Your task to perform on an android device: Is it going to rain tomorrow? Image 0: 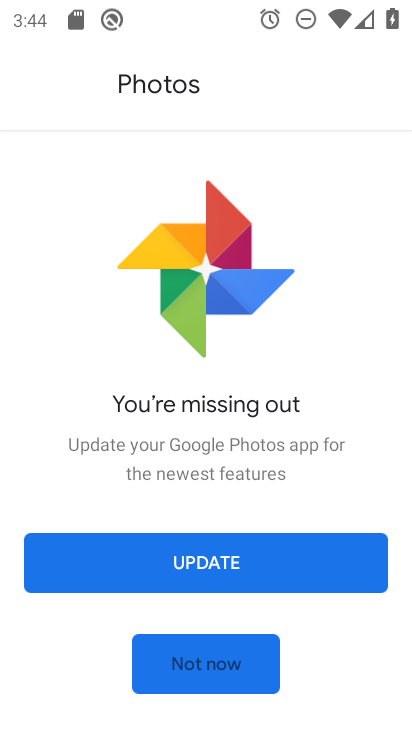
Step 0: press home button
Your task to perform on an android device: Is it going to rain tomorrow? Image 1: 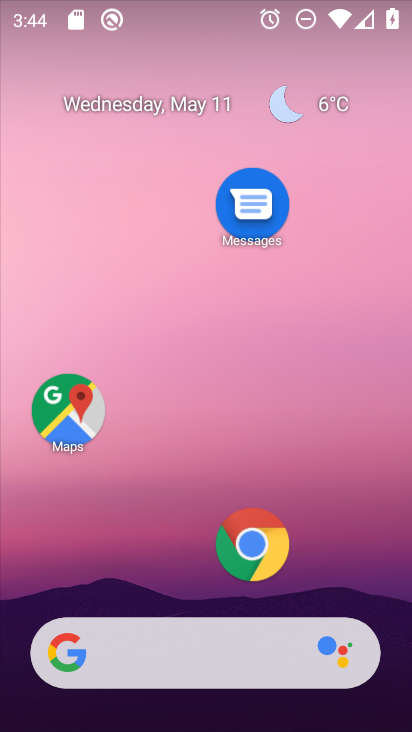
Step 1: click (287, 92)
Your task to perform on an android device: Is it going to rain tomorrow? Image 2: 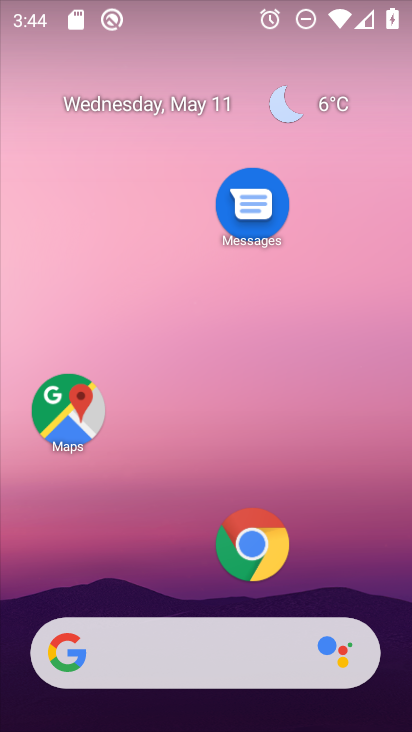
Step 2: click (298, 92)
Your task to perform on an android device: Is it going to rain tomorrow? Image 3: 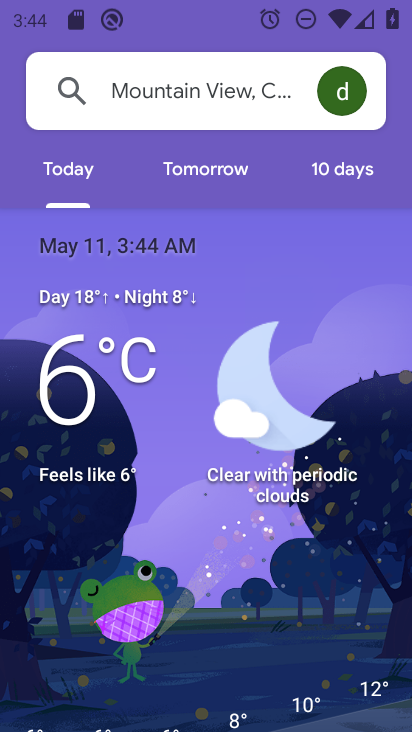
Step 3: click (219, 169)
Your task to perform on an android device: Is it going to rain tomorrow? Image 4: 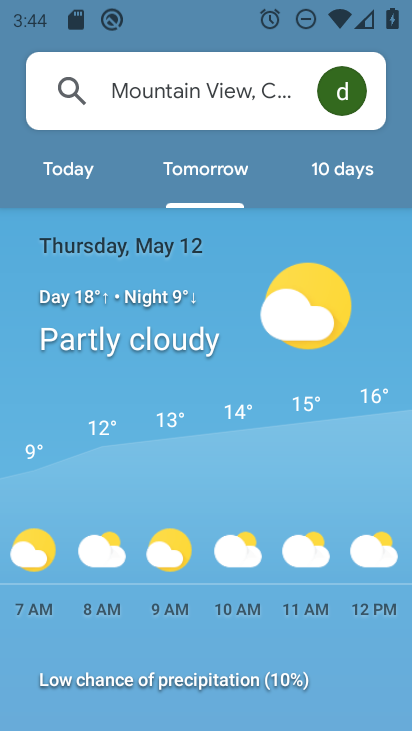
Step 4: task complete